Your task to perform on an android device: turn off data saver in the chrome app Image 0: 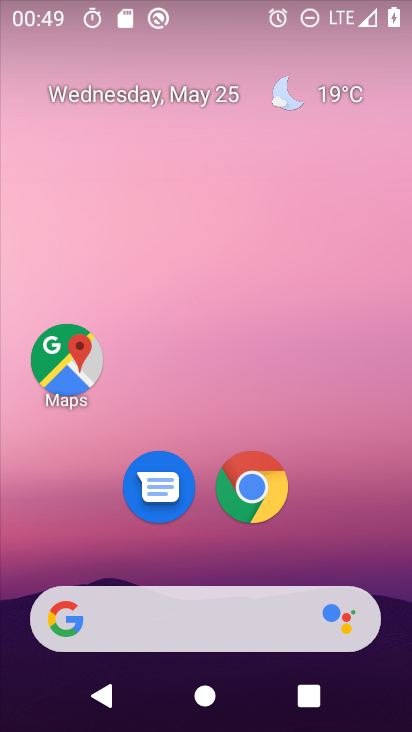
Step 0: click (254, 497)
Your task to perform on an android device: turn off data saver in the chrome app Image 1: 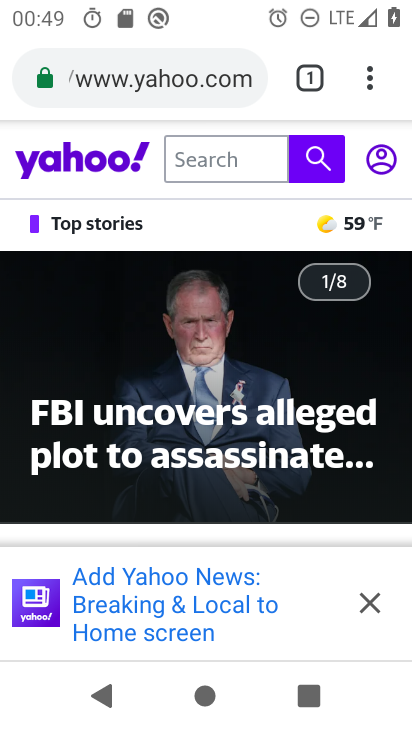
Step 1: click (368, 81)
Your task to perform on an android device: turn off data saver in the chrome app Image 2: 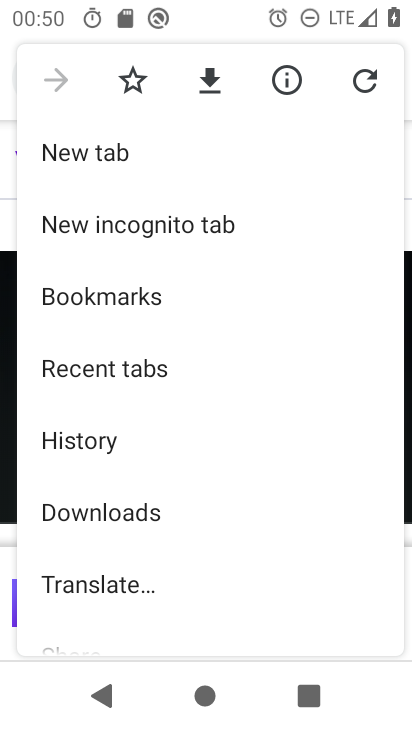
Step 2: drag from (171, 556) to (202, 170)
Your task to perform on an android device: turn off data saver in the chrome app Image 3: 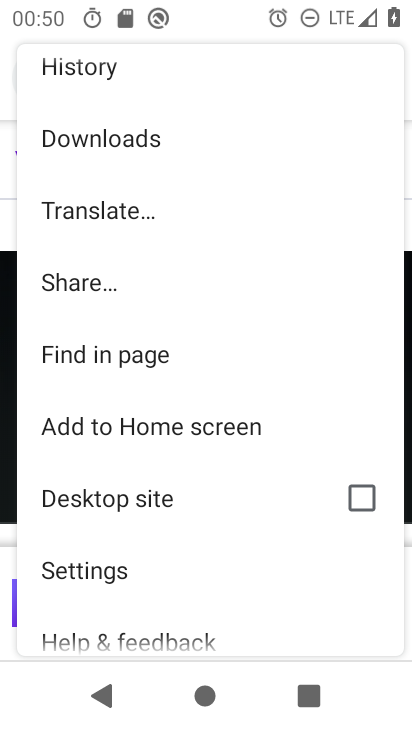
Step 3: drag from (187, 485) to (189, 222)
Your task to perform on an android device: turn off data saver in the chrome app Image 4: 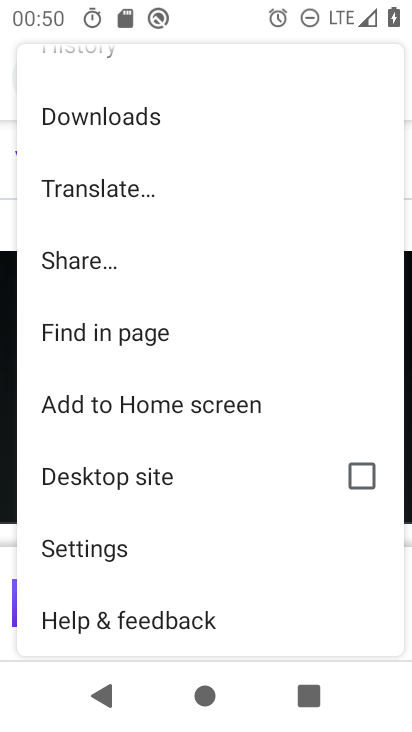
Step 4: click (80, 550)
Your task to perform on an android device: turn off data saver in the chrome app Image 5: 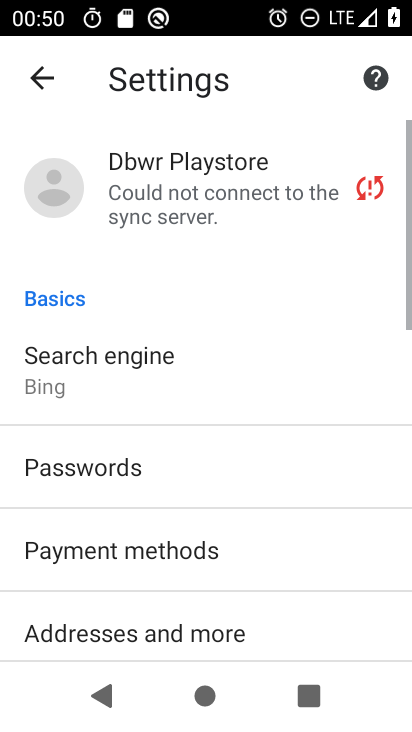
Step 5: drag from (138, 564) to (141, 120)
Your task to perform on an android device: turn off data saver in the chrome app Image 6: 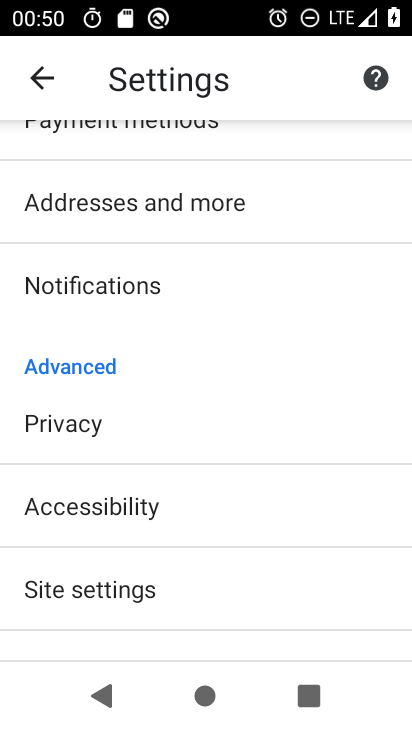
Step 6: drag from (117, 500) to (126, 215)
Your task to perform on an android device: turn off data saver in the chrome app Image 7: 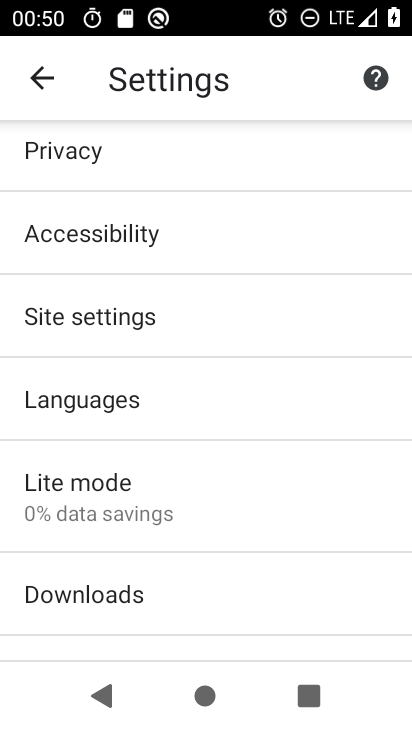
Step 7: click (71, 492)
Your task to perform on an android device: turn off data saver in the chrome app Image 8: 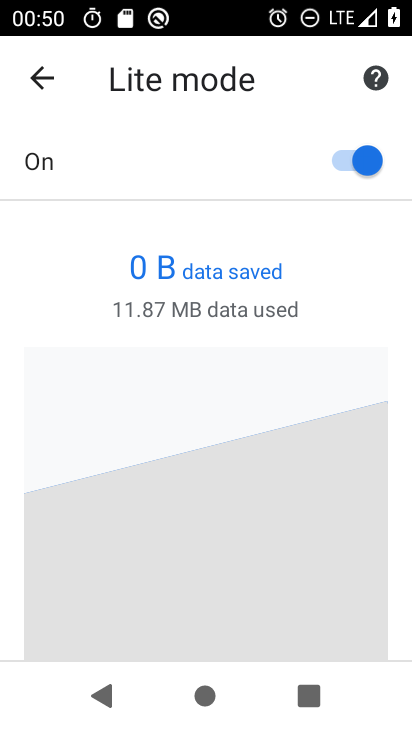
Step 8: click (369, 172)
Your task to perform on an android device: turn off data saver in the chrome app Image 9: 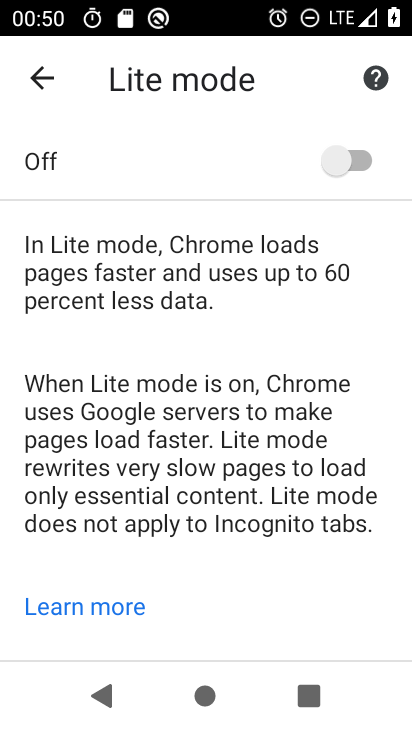
Step 9: task complete